Your task to perform on an android device: Search for seafood restaurants on Google Maps Image 0: 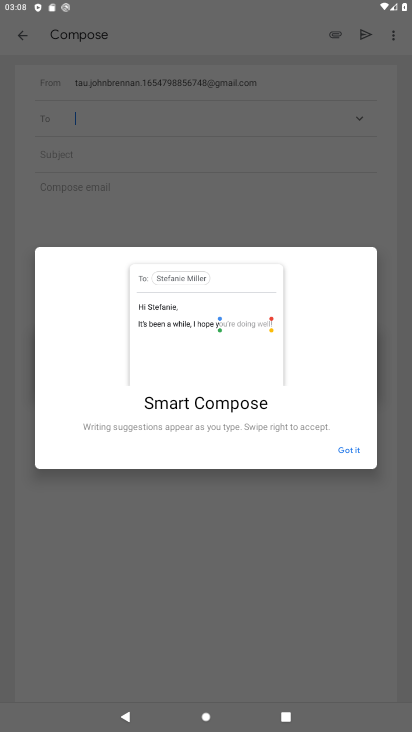
Step 0: press home button
Your task to perform on an android device: Search for seafood restaurants on Google Maps Image 1: 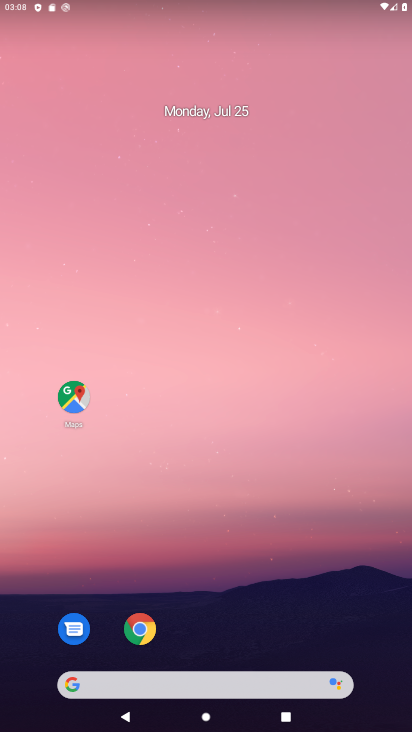
Step 1: click (73, 394)
Your task to perform on an android device: Search for seafood restaurants on Google Maps Image 2: 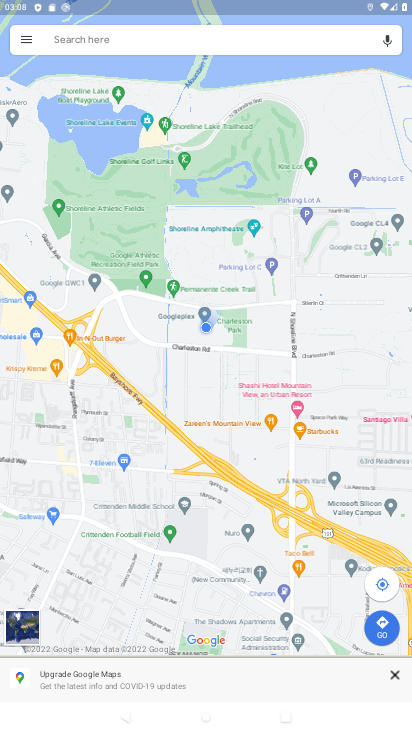
Step 2: click (144, 32)
Your task to perform on an android device: Search for seafood restaurants on Google Maps Image 3: 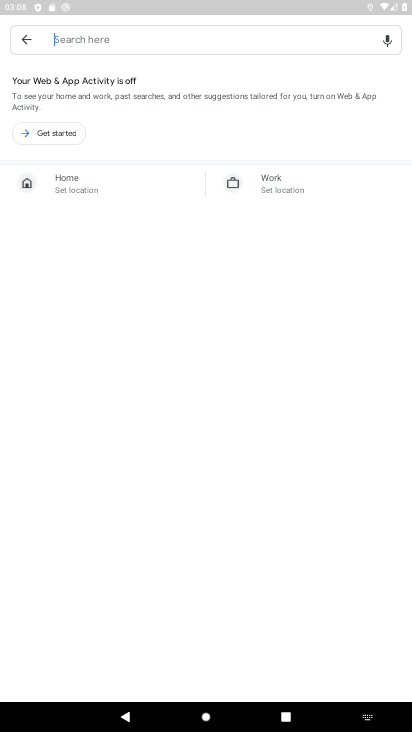
Step 3: type "seafood restaurants"
Your task to perform on an android device: Search for seafood restaurants on Google Maps Image 4: 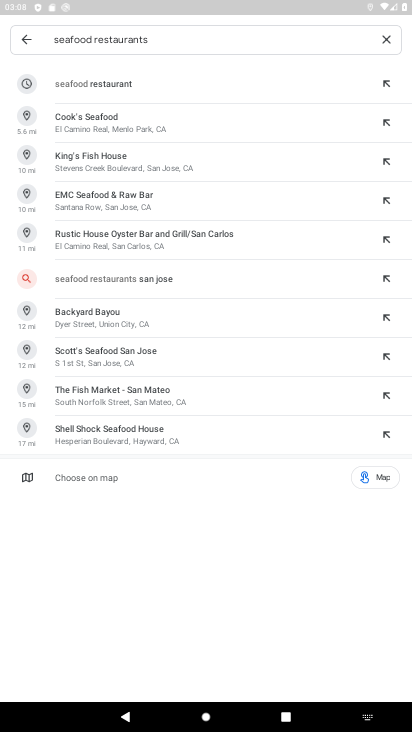
Step 4: click (67, 89)
Your task to perform on an android device: Search for seafood restaurants on Google Maps Image 5: 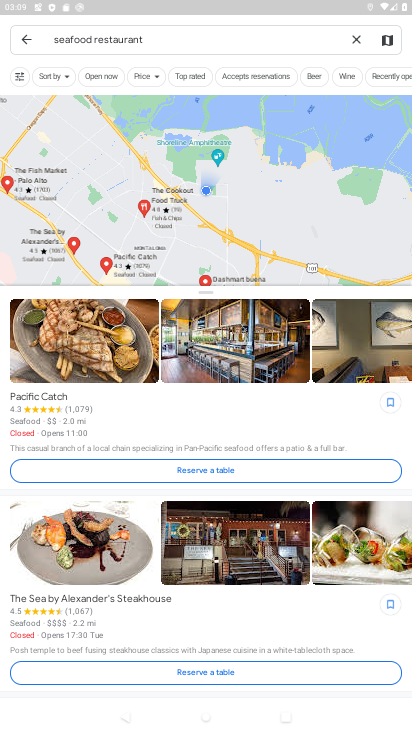
Step 5: task complete